Your task to perform on an android device: Go to battery settings Image 0: 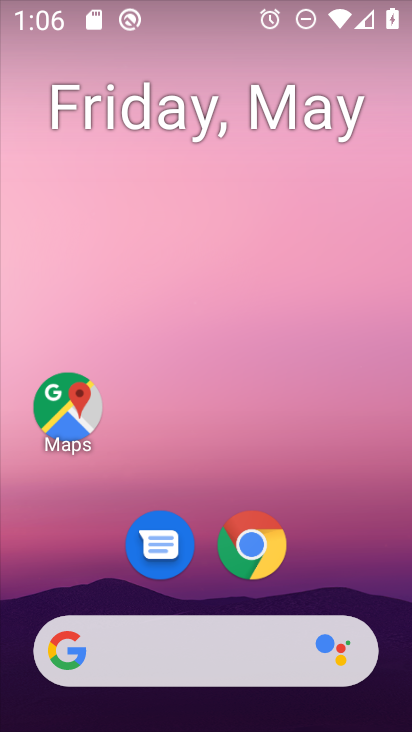
Step 0: drag from (350, 567) to (316, 290)
Your task to perform on an android device: Go to battery settings Image 1: 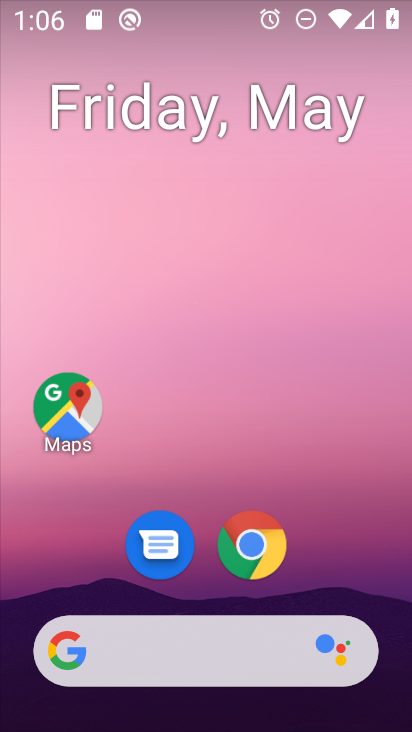
Step 1: drag from (285, 569) to (334, 213)
Your task to perform on an android device: Go to battery settings Image 2: 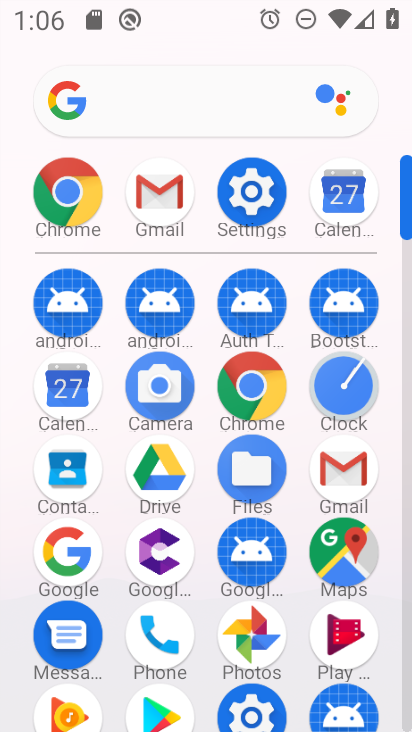
Step 2: click (252, 194)
Your task to perform on an android device: Go to battery settings Image 3: 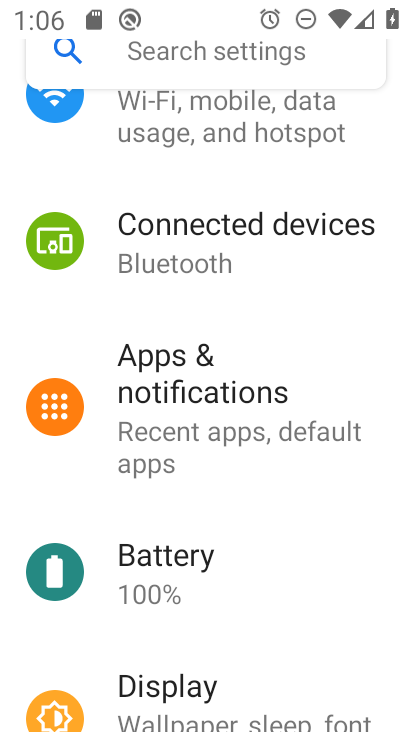
Step 3: drag from (212, 550) to (215, 348)
Your task to perform on an android device: Go to battery settings Image 4: 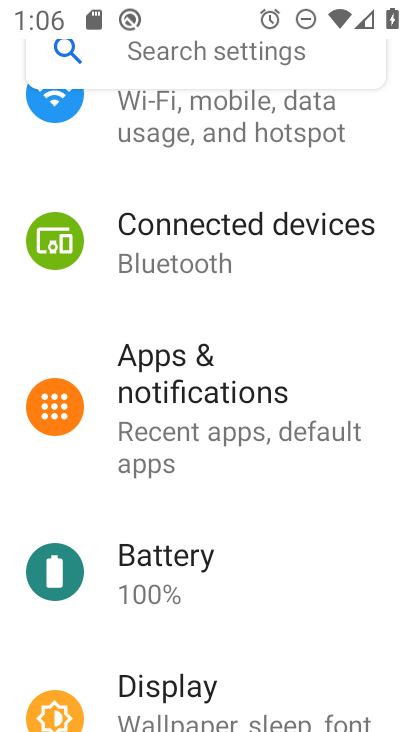
Step 4: click (172, 533)
Your task to perform on an android device: Go to battery settings Image 5: 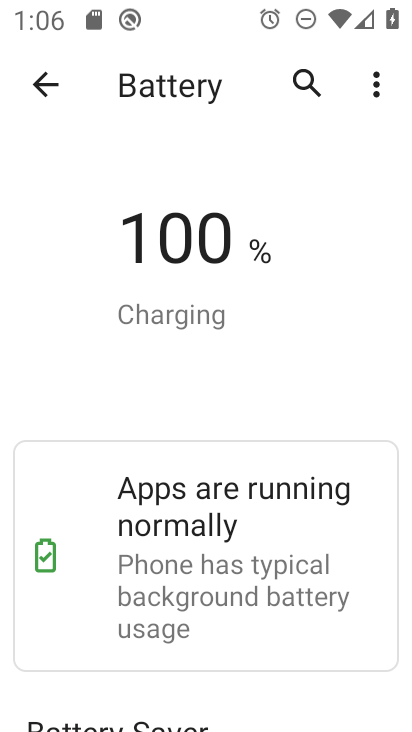
Step 5: task complete